Your task to perform on an android device: change the clock display to analog Image 0: 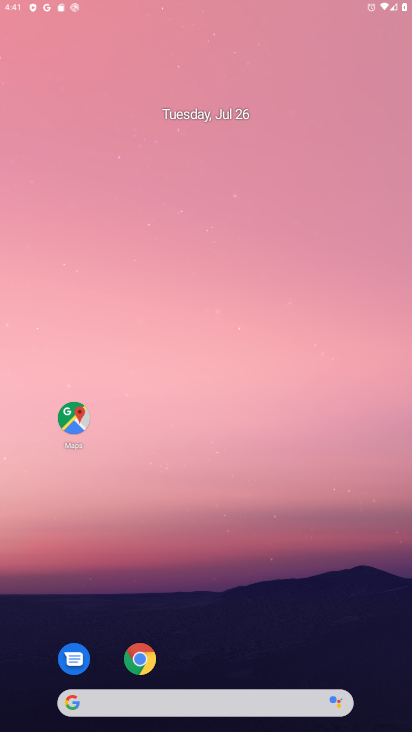
Step 0: press home button
Your task to perform on an android device: change the clock display to analog Image 1: 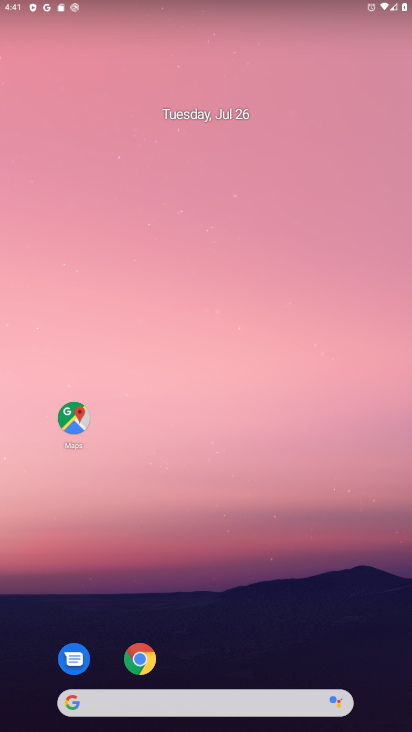
Step 1: drag from (208, 600) to (202, 0)
Your task to perform on an android device: change the clock display to analog Image 2: 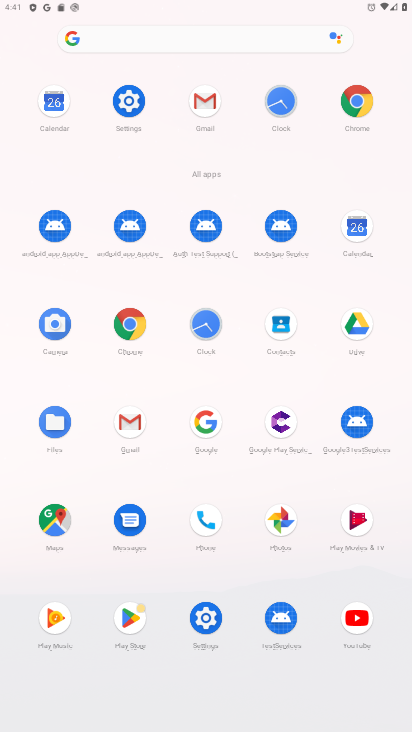
Step 2: click (203, 318)
Your task to perform on an android device: change the clock display to analog Image 3: 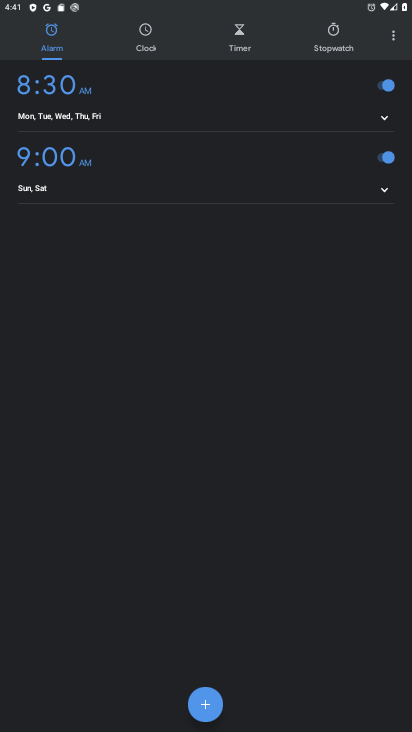
Step 3: click (394, 36)
Your task to perform on an android device: change the clock display to analog Image 4: 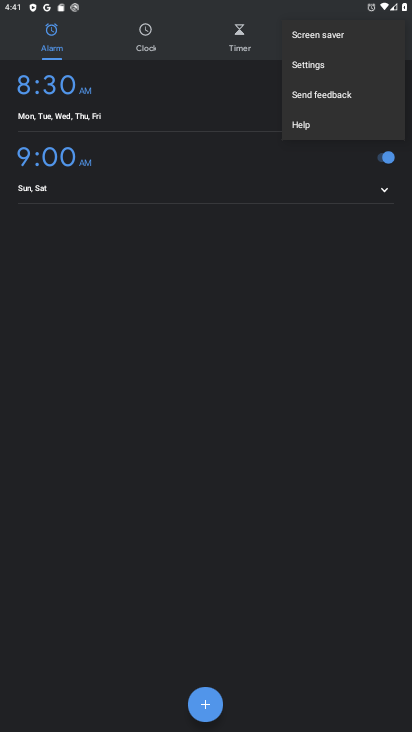
Step 4: click (327, 62)
Your task to perform on an android device: change the clock display to analog Image 5: 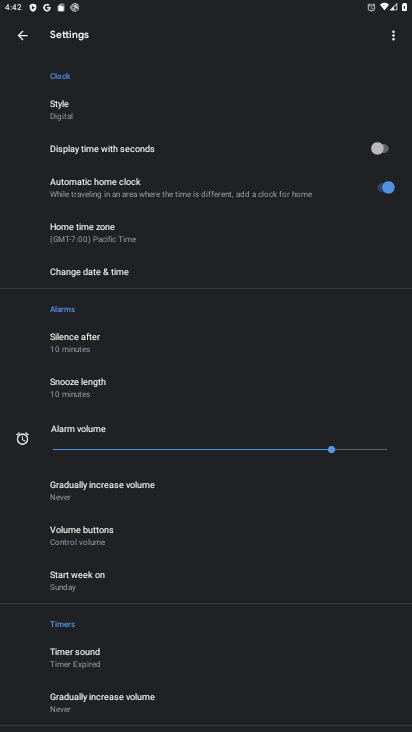
Step 5: click (83, 106)
Your task to perform on an android device: change the clock display to analog Image 6: 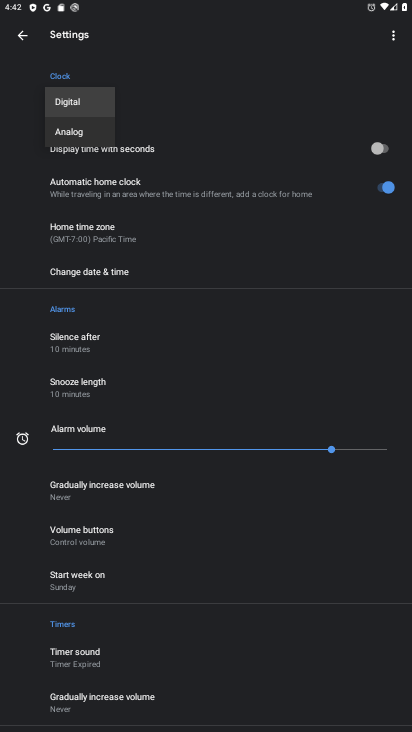
Step 6: click (87, 133)
Your task to perform on an android device: change the clock display to analog Image 7: 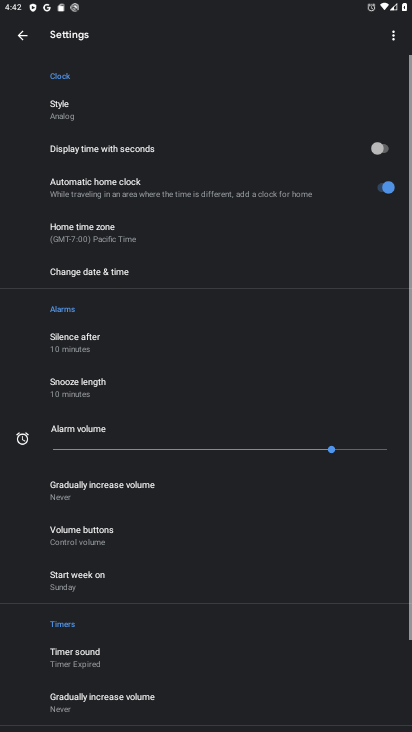
Step 7: task complete